Your task to perform on an android device: Open Google Chrome and click the shortcut for Amazon.com Image 0: 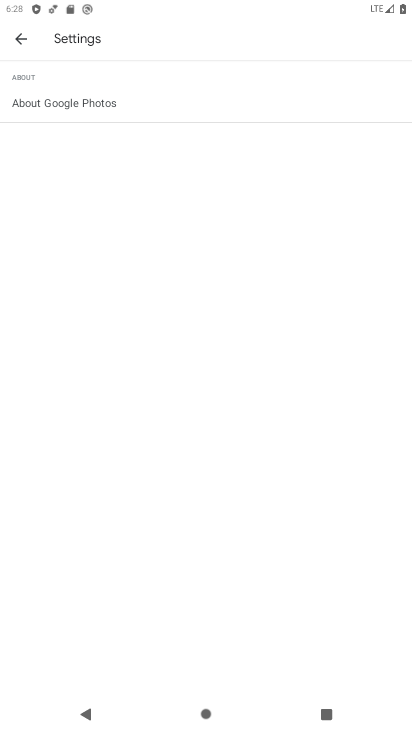
Step 0: press home button
Your task to perform on an android device: Open Google Chrome and click the shortcut for Amazon.com Image 1: 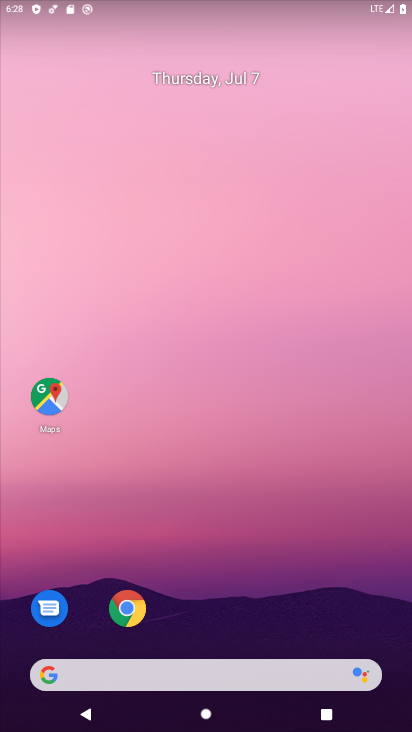
Step 1: drag from (183, 616) to (234, 148)
Your task to perform on an android device: Open Google Chrome and click the shortcut for Amazon.com Image 2: 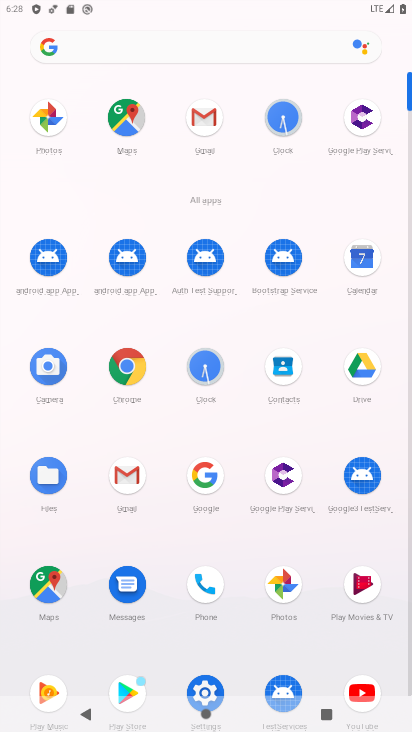
Step 2: click (117, 377)
Your task to perform on an android device: Open Google Chrome and click the shortcut for Amazon.com Image 3: 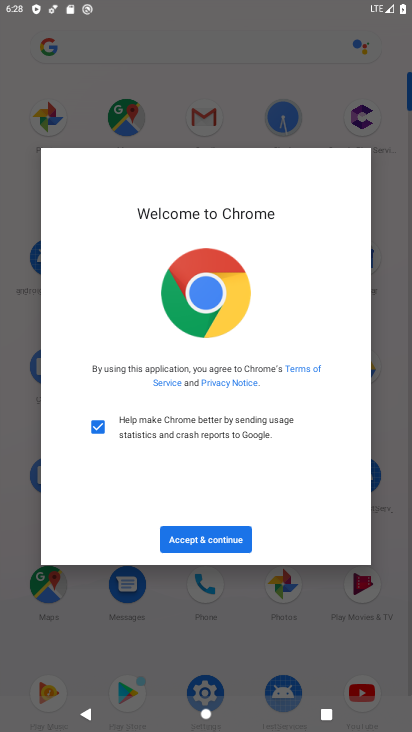
Step 3: click (231, 535)
Your task to perform on an android device: Open Google Chrome and click the shortcut for Amazon.com Image 4: 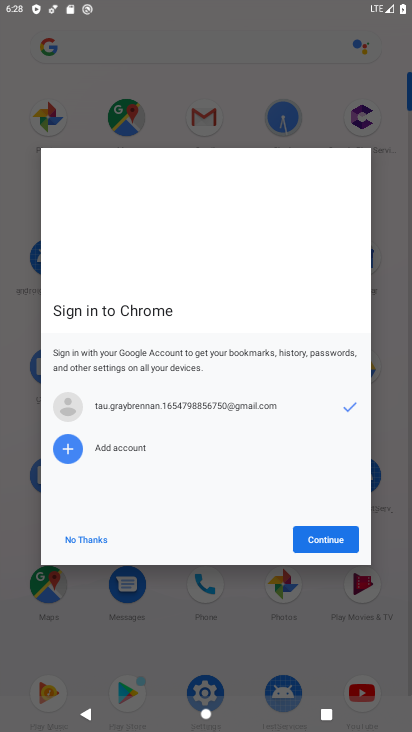
Step 4: click (231, 535)
Your task to perform on an android device: Open Google Chrome and click the shortcut for Amazon.com Image 5: 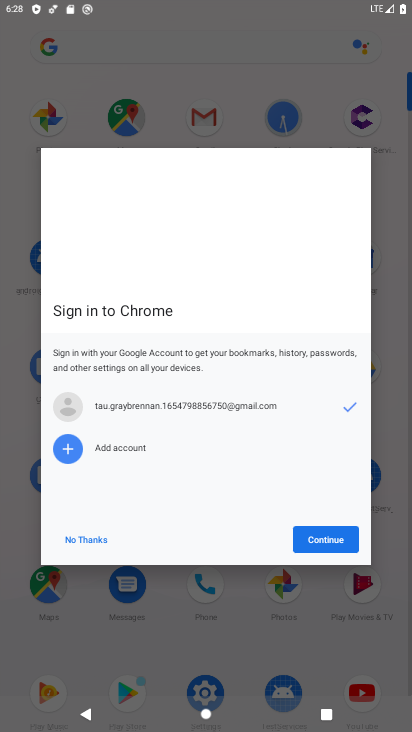
Step 5: click (343, 543)
Your task to perform on an android device: Open Google Chrome and click the shortcut for Amazon.com Image 6: 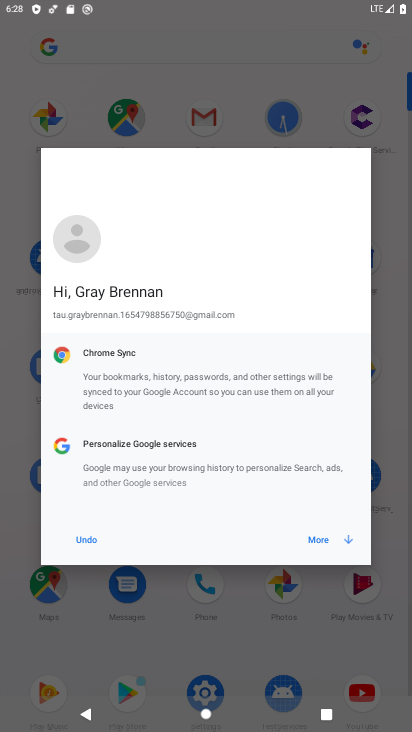
Step 6: click (343, 543)
Your task to perform on an android device: Open Google Chrome and click the shortcut for Amazon.com Image 7: 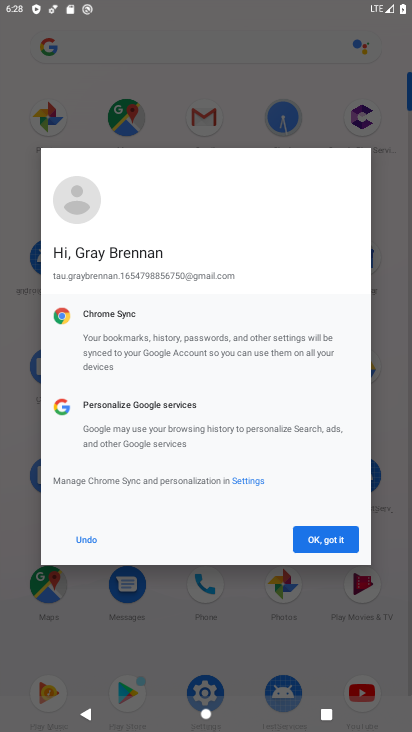
Step 7: click (343, 547)
Your task to perform on an android device: Open Google Chrome and click the shortcut for Amazon.com Image 8: 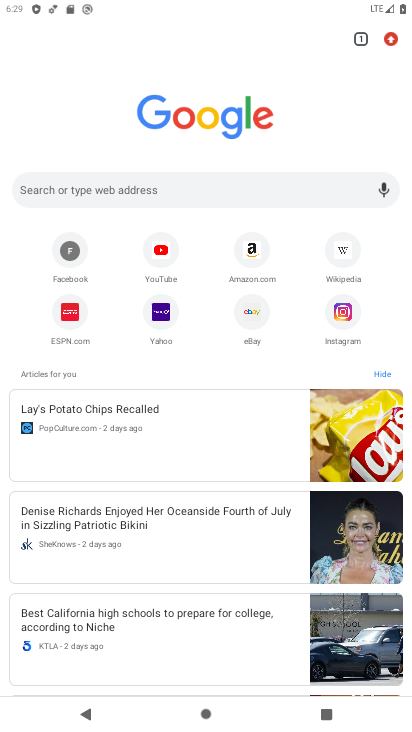
Step 8: click (257, 257)
Your task to perform on an android device: Open Google Chrome and click the shortcut for Amazon.com Image 9: 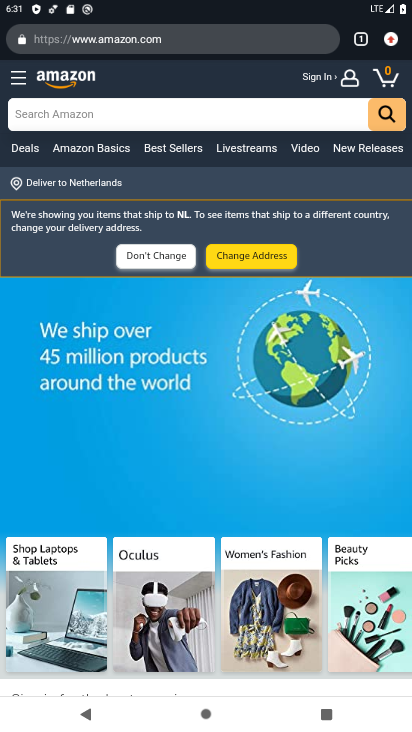
Step 9: task complete